Your task to perform on an android device: What's the price of the Galaxy phone? Image 0: 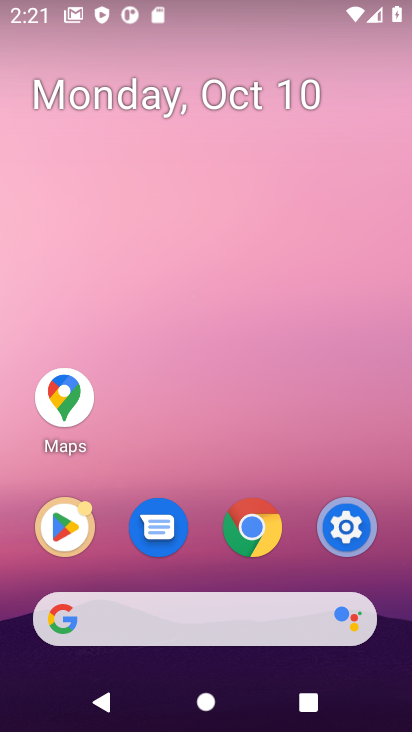
Step 0: press home button
Your task to perform on an android device: What's the price of the Galaxy phone? Image 1: 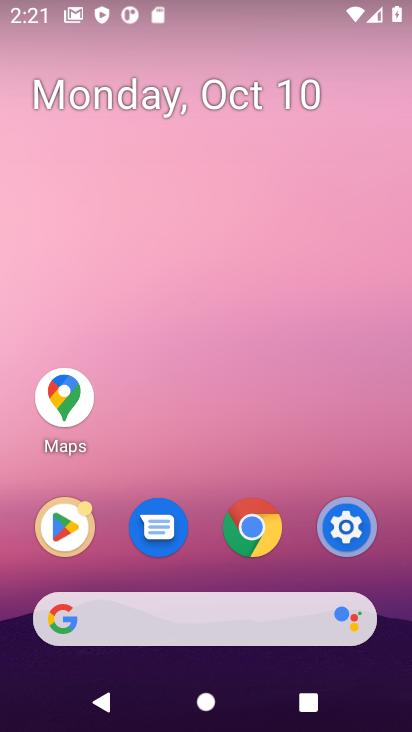
Step 1: click (277, 624)
Your task to perform on an android device: What's the price of the Galaxy phone? Image 2: 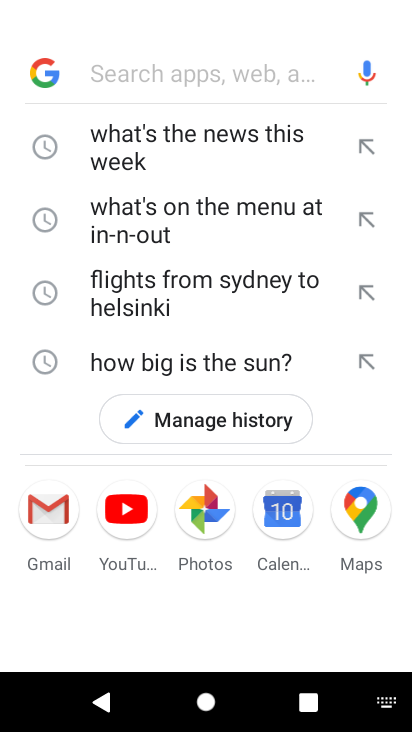
Step 2: type "What's the price of the Galaxy phone"
Your task to perform on an android device: What's the price of the Galaxy phone? Image 3: 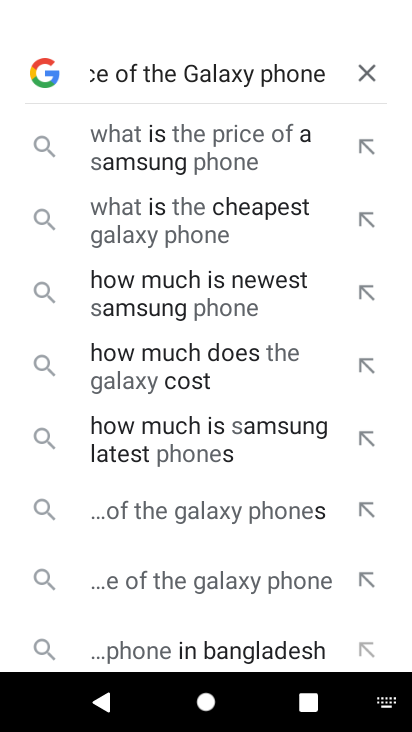
Step 3: press enter
Your task to perform on an android device: What's the price of the Galaxy phone? Image 4: 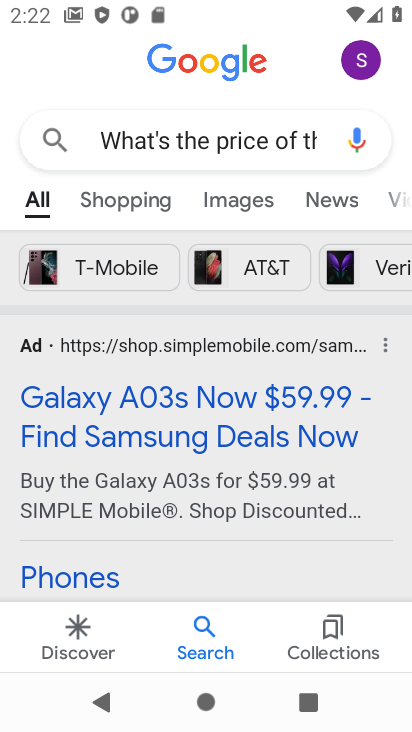
Step 4: click (221, 438)
Your task to perform on an android device: What's the price of the Galaxy phone? Image 5: 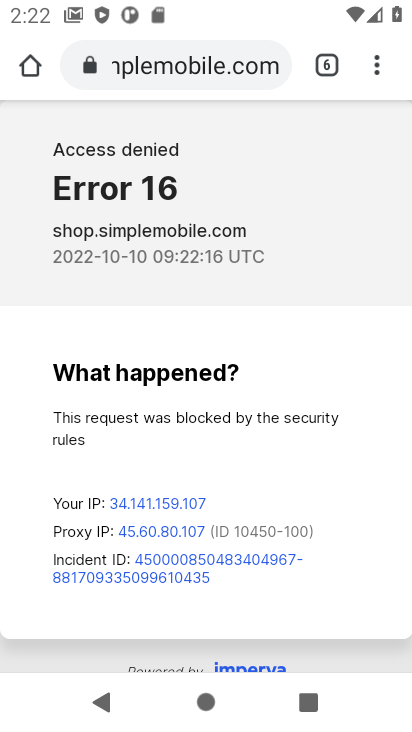
Step 5: task complete